Your task to perform on an android device: What is the recent news? Image 0: 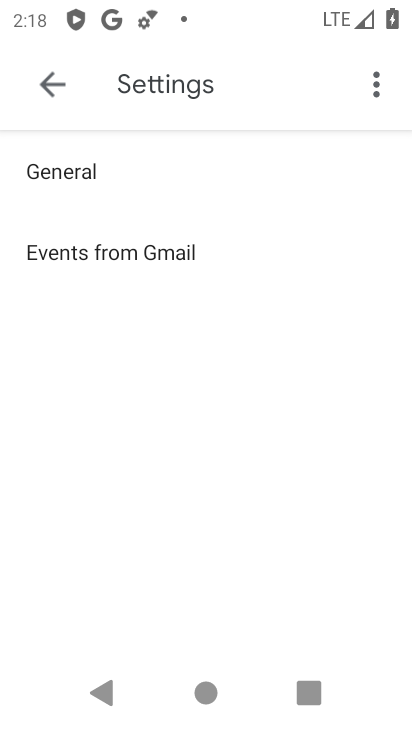
Step 0: press home button
Your task to perform on an android device: What is the recent news? Image 1: 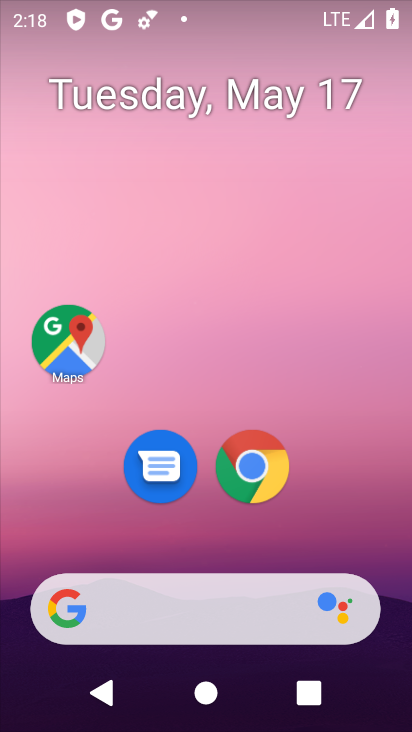
Step 1: click (265, 468)
Your task to perform on an android device: What is the recent news? Image 2: 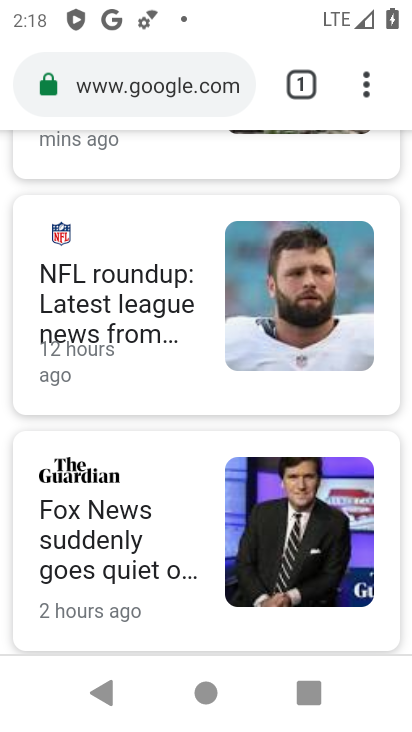
Step 2: task complete